Your task to perform on an android device: check data usage Image 0: 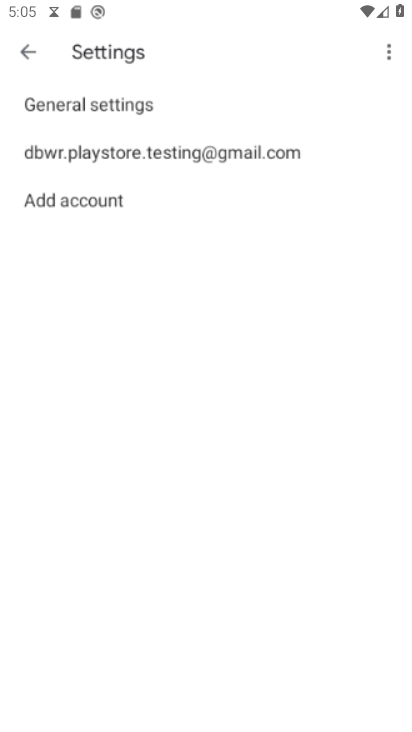
Step 0: drag from (315, 671) to (357, 42)
Your task to perform on an android device: check data usage Image 1: 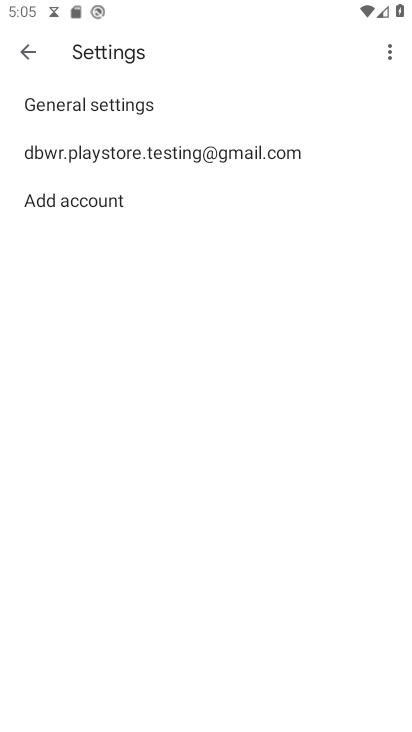
Step 1: press home button
Your task to perform on an android device: check data usage Image 2: 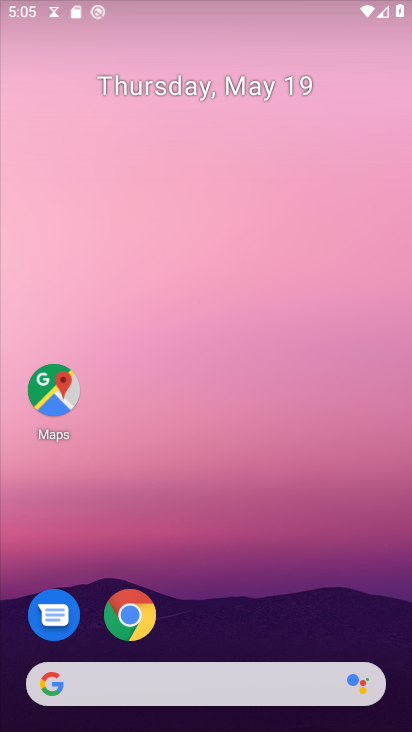
Step 2: drag from (181, 651) to (270, 2)
Your task to perform on an android device: check data usage Image 3: 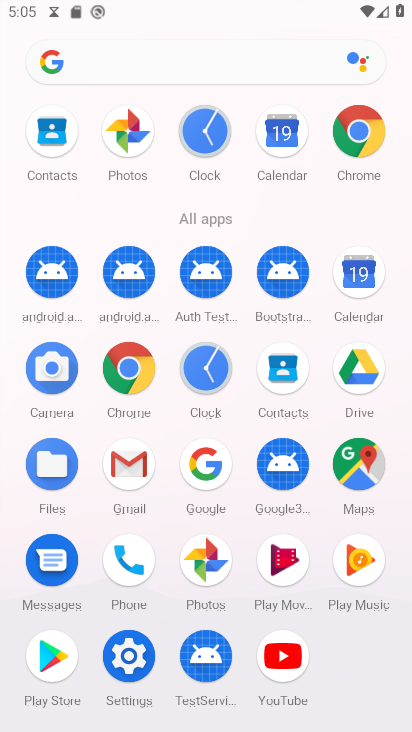
Step 3: click (122, 650)
Your task to perform on an android device: check data usage Image 4: 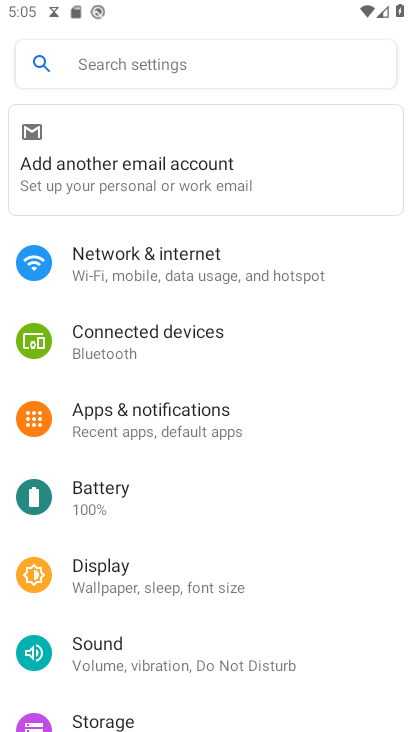
Step 4: click (200, 255)
Your task to perform on an android device: check data usage Image 5: 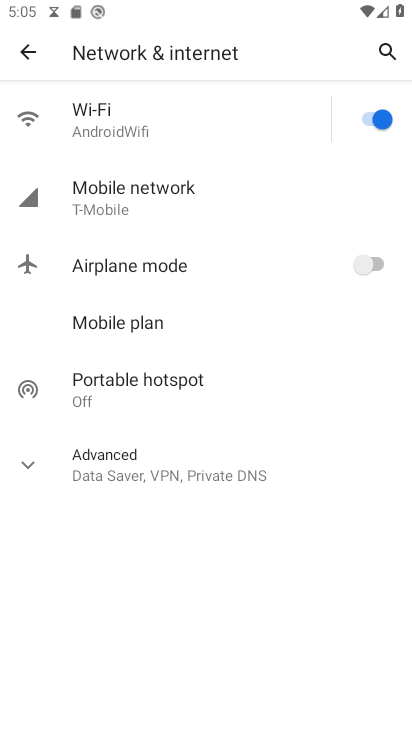
Step 5: click (182, 203)
Your task to perform on an android device: check data usage Image 6: 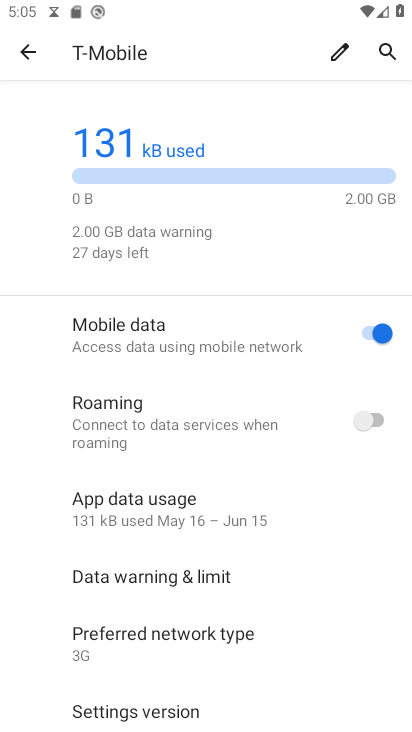
Step 6: task complete